Your task to perform on an android device: Go to calendar. Show me events next week Image 0: 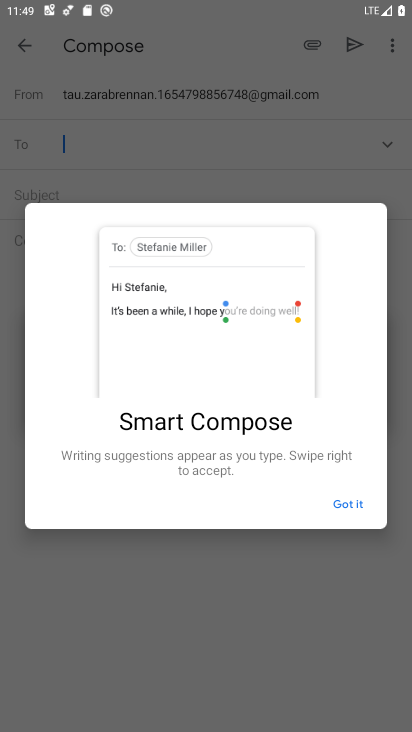
Step 0: press home button
Your task to perform on an android device: Go to calendar. Show me events next week Image 1: 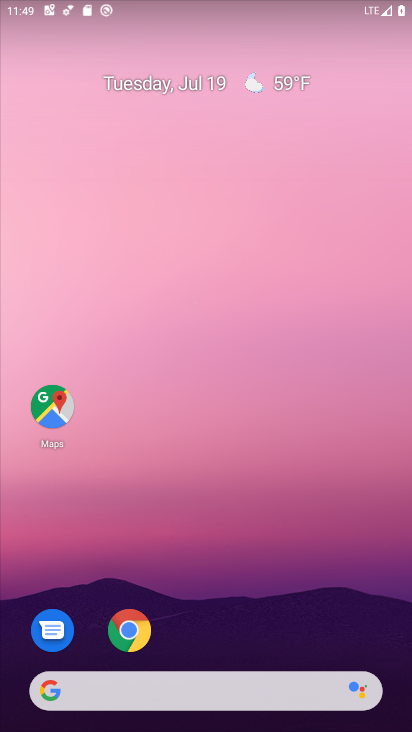
Step 1: drag from (385, 643) to (314, 77)
Your task to perform on an android device: Go to calendar. Show me events next week Image 2: 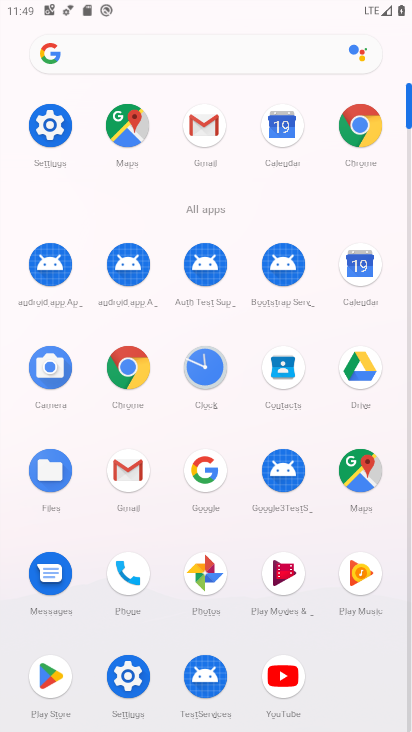
Step 2: click (359, 266)
Your task to perform on an android device: Go to calendar. Show me events next week Image 3: 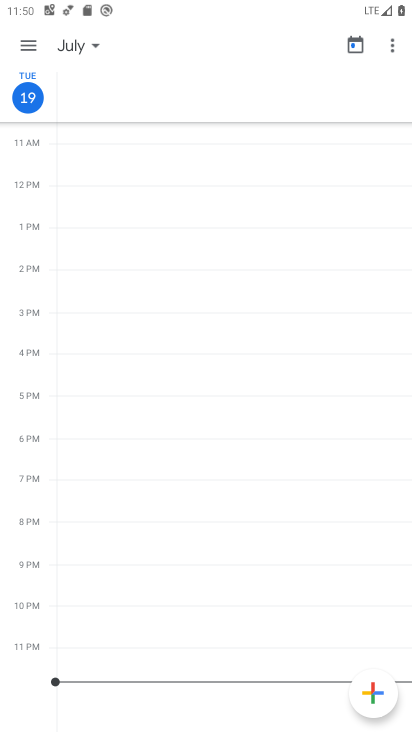
Step 3: click (32, 46)
Your task to perform on an android device: Go to calendar. Show me events next week Image 4: 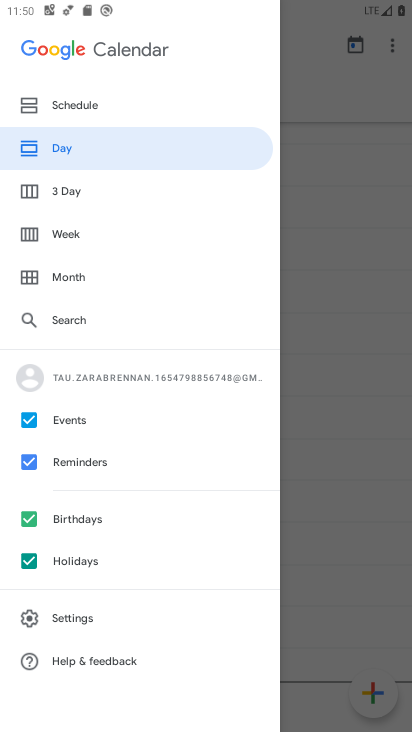
Step 4: click (72, 235)
Your task to perform on an android device: Go to calendar. Show me events next week Image 5: 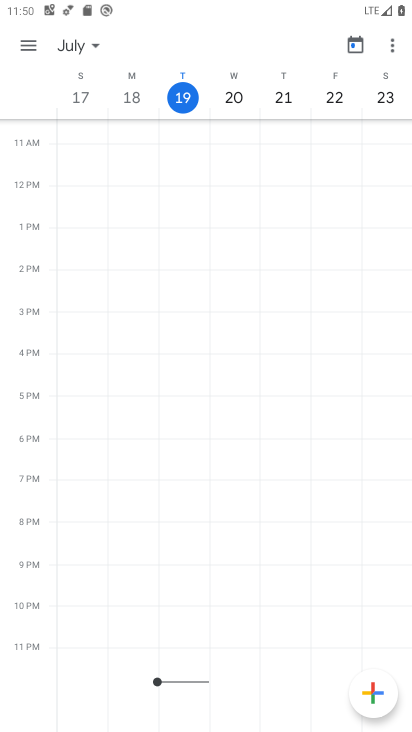
Step 5: click (93, 38)
Your task to perform on an android device: Go to calendar. Show me events next week Image 6: 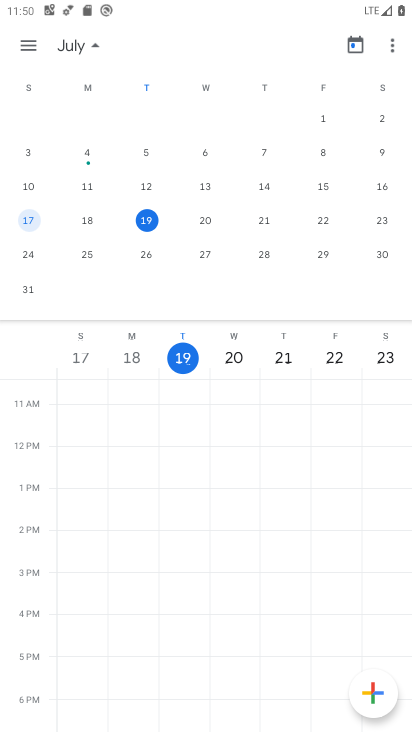
Step 6: click (30, 255)
Your task to perform on an android device: Go to calendar. Show me events next week Image 7: 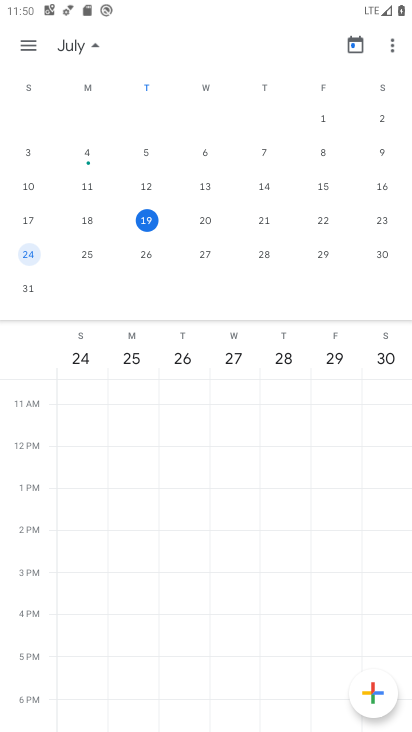
Step 7: click (144, 286)
Your task to perform on an android device: Go to calendar. Show me events next week Image 8: 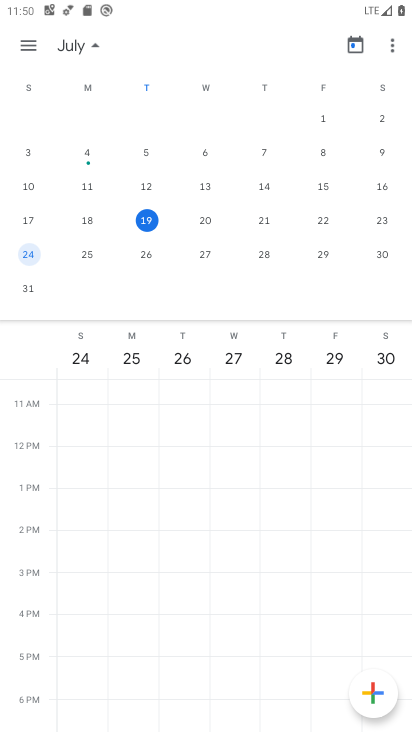
Step 8: task complete